Your task to perform on an android device: Open Youtube and go to the subscriptions tab Image 0: 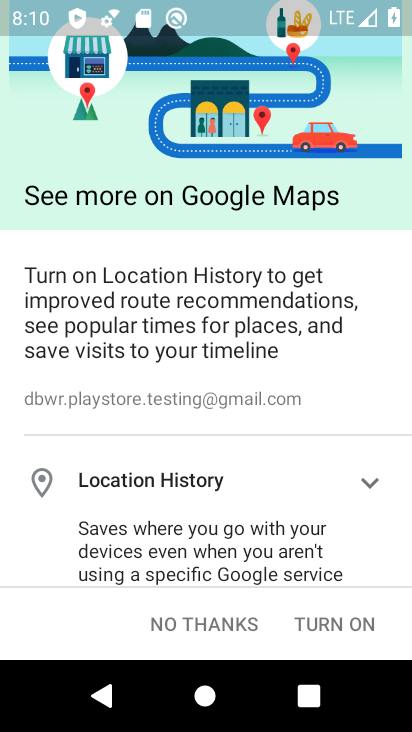
Step 0: click (336, 616)
Your task to perform on an android device: Open Youtube and go to the subscriptions tab Image 1: 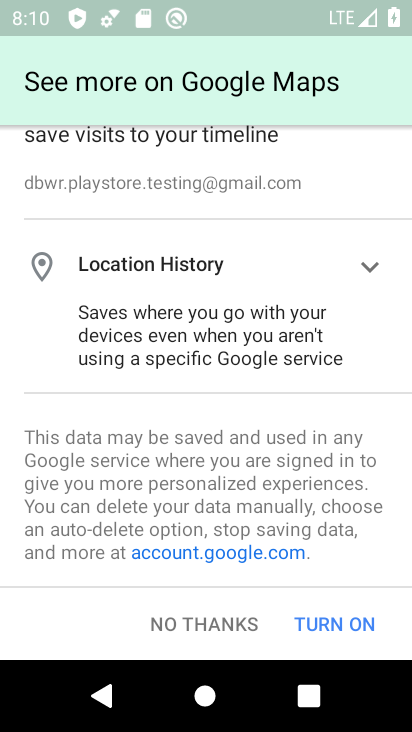
Step 1: click (336, 616)
Your task to perform on an android device: Open Youtube and go to the subscriptions tab Image 2: 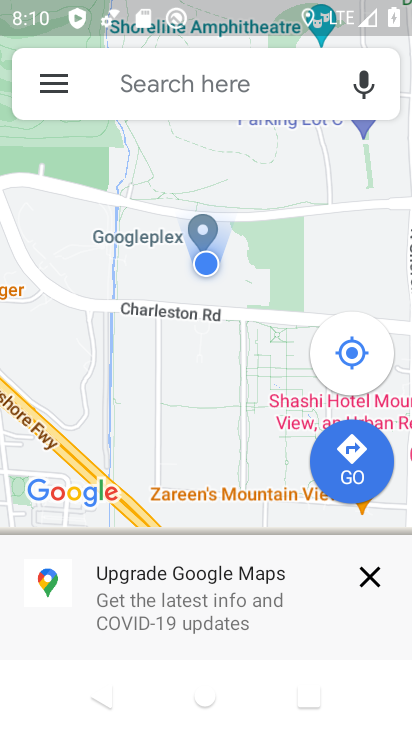
Step 2: press home button
Your task to perform on an android device: Open Youtube and go to the subscriptions tab Image 3: 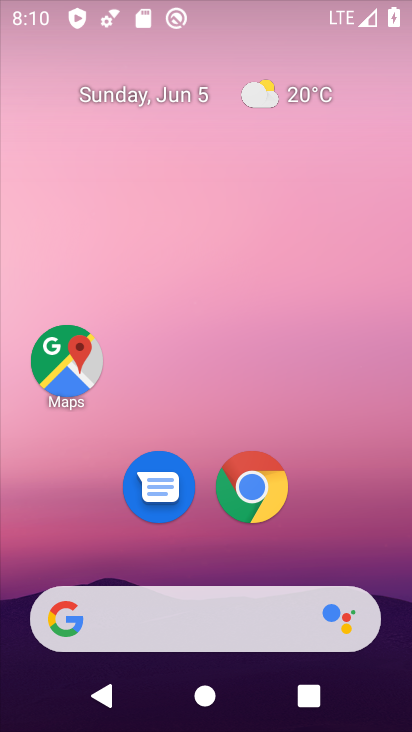
Step 3: drag from (203, 554) to (194, 82)
Your task to perform on an android device: Open Youtube and go to the subscriptions tab Image 4: 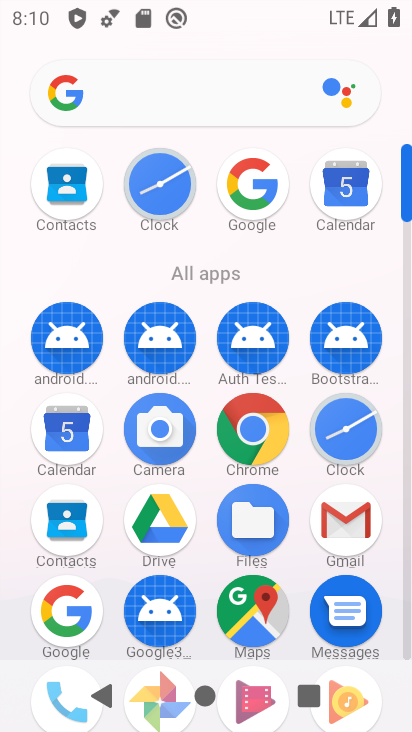
Step 4: drag from (217, 572) to (238, 254)
Your task to perform on an android device: Open Youtube and go to the subscriptions tab Image 5: 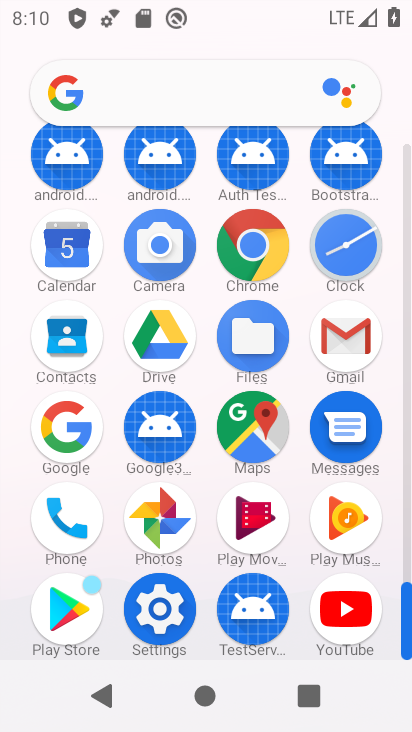
Step 5: drag from (235, 498) to (235, 290)
Your task to perform on an android device: Open Youtube and go to the subscriptions tab Image 6: 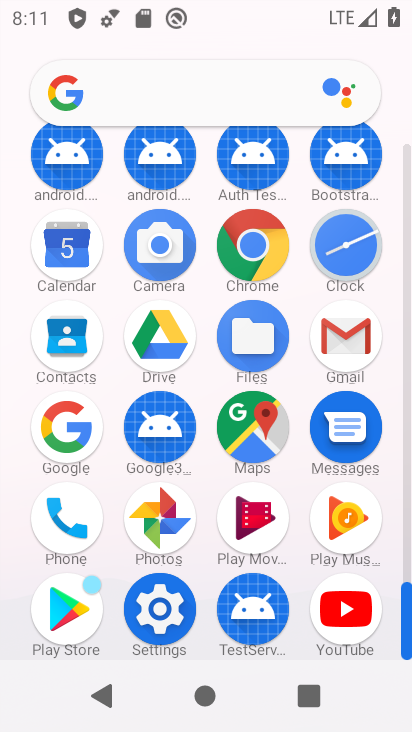
Step 6: click (340, 571)
Your task to perform on an android device: Open Youtube and go to the subscriptions tab Image 7: 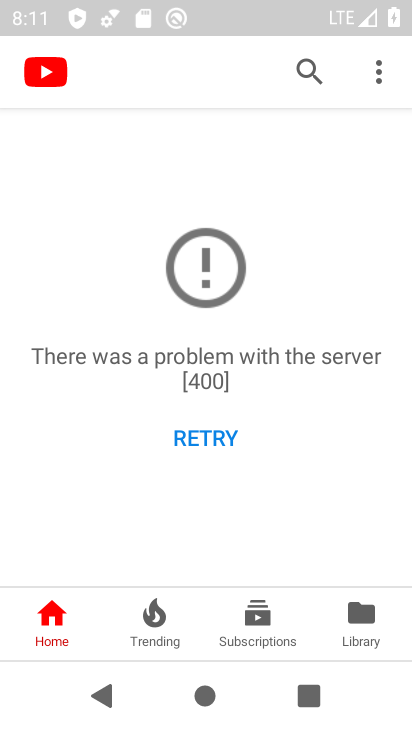
Step 7: click (255, 628)
Your task to perform on an android device: Open Youtube and go to the subscriptions tab Image 8: 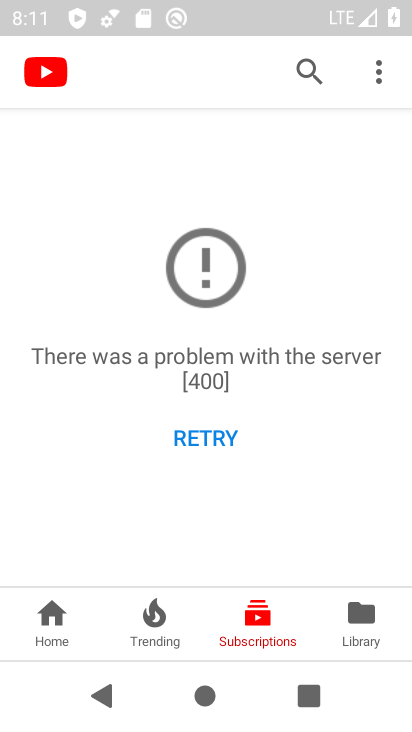
Step 8: task complete